Your task to perform on an android device: change timer sound Image 0: 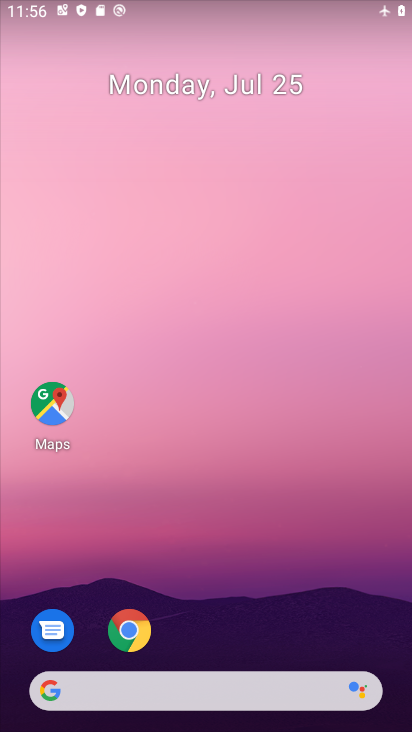
Step 0: press home button
Your task to perform on an android device: change timer sound Image 1: 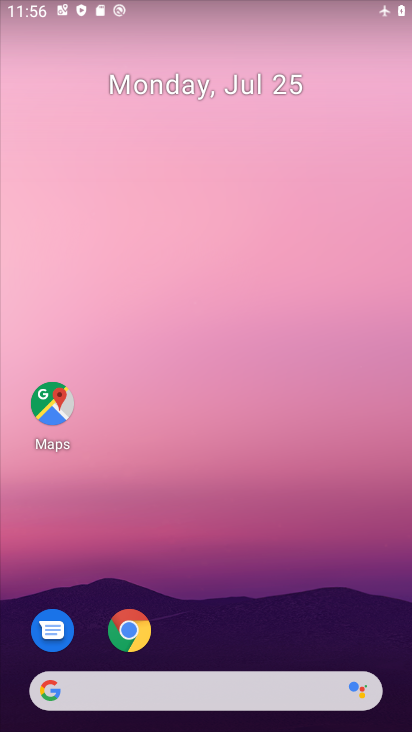
Step 1: drag from (338, 614) to (332, 200)
Your task to perform on an android device: change timer sound Image 2: 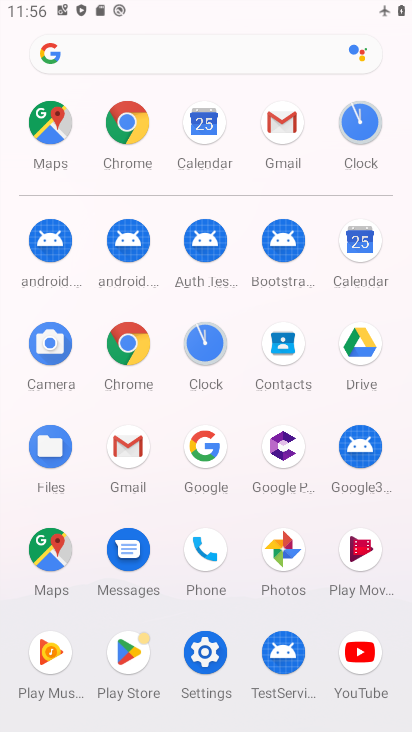
Step 2: click (359, 123)
Your task to perform on an android device: change timer sound Image 3: 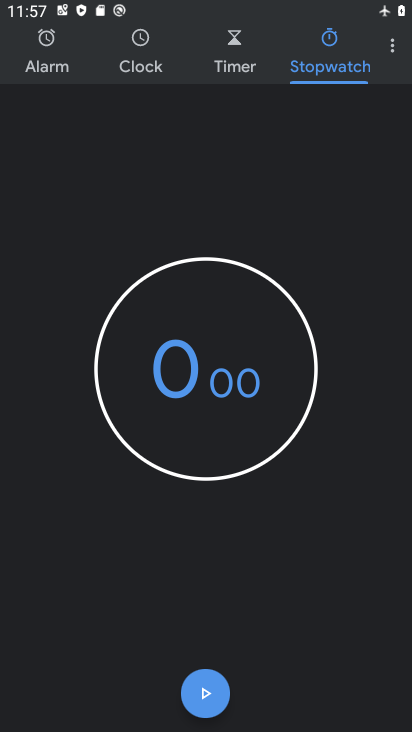
Step 3: click (392, 45)
Your task to perform on an android device: change timer sound Image 4: 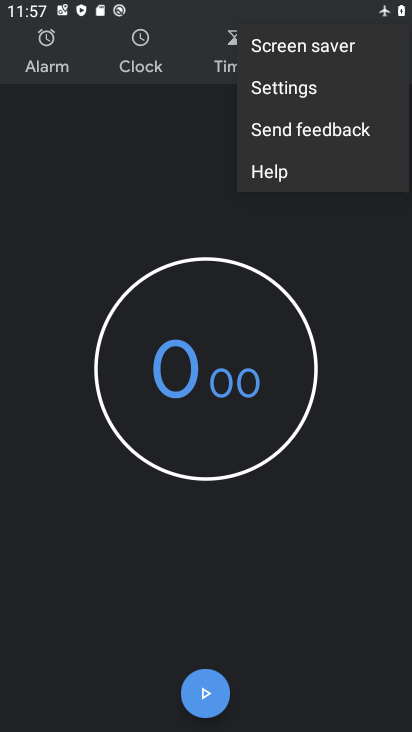
Step 4: click (345, 92)
Your task to perform on an android device: change timer sound Image 5: 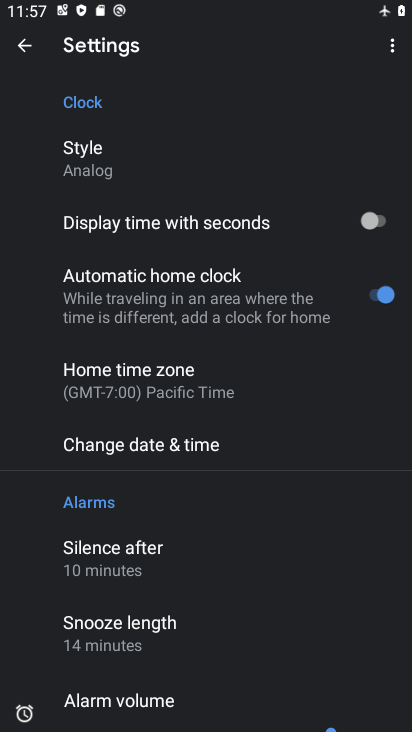
Step 5: drag from (304, 566) to (321, 475)
Your task to perform on an android device: change timer sound Image 6: 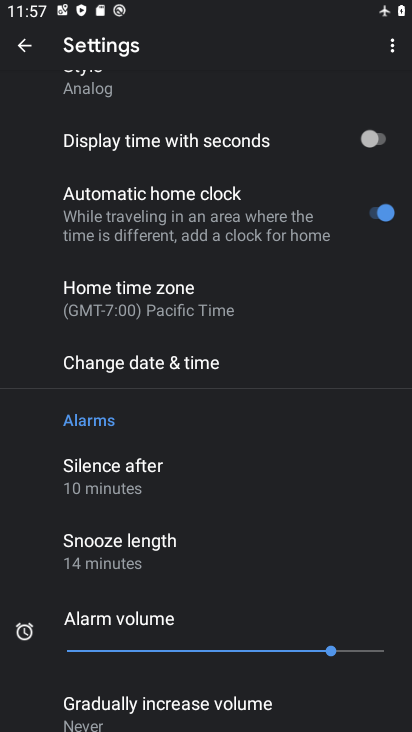
Step 6: drag from (326, 631) to (328, 519)
Your task to perform on an android device: change timer sound Image 7: 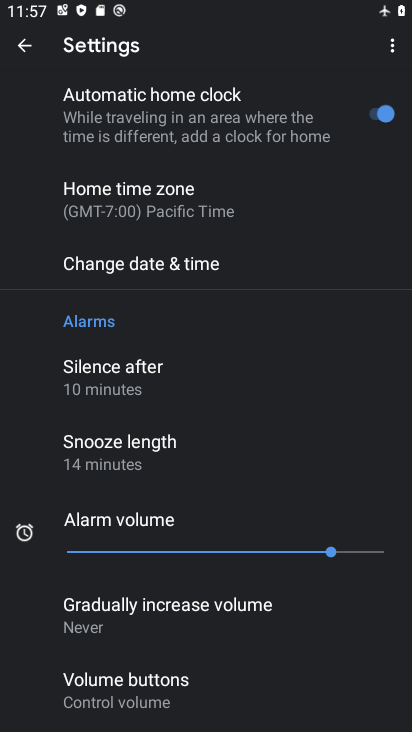
Step 7: drag from (328, 640) to (341, 558)
Your task to perform on an android device: change timer sound Image 8: 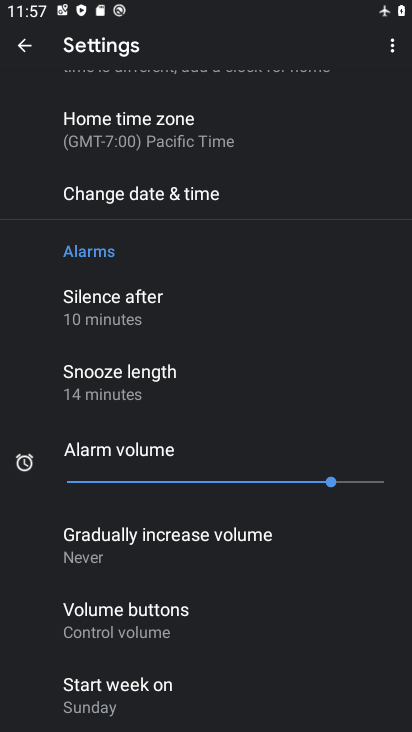
Step 8: drag from (343, 654) to (353, 469)
Your task to perform on an android device: change timer sound Image 9: 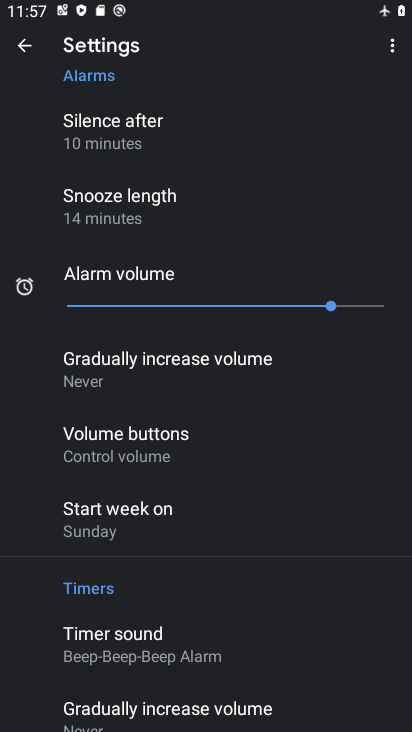
Step 9: drag from (332, 597) to (348, 500)
Your task to perform on an android device: change timer sound Image 10: 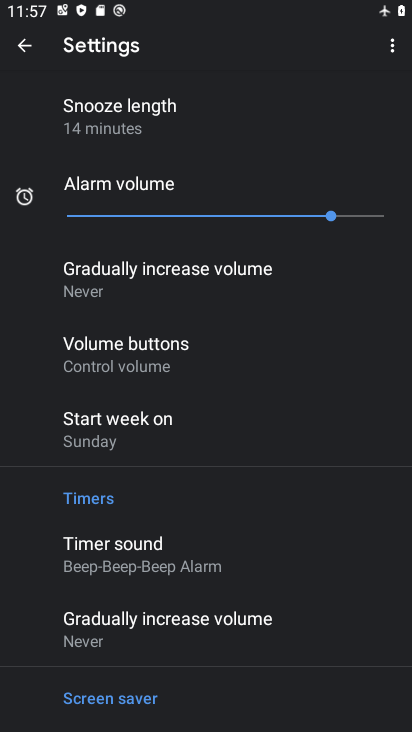
Step 10: drag from (337, 631) to (343, 532)
Your task to perform on an android device: change timer sound Image 11: 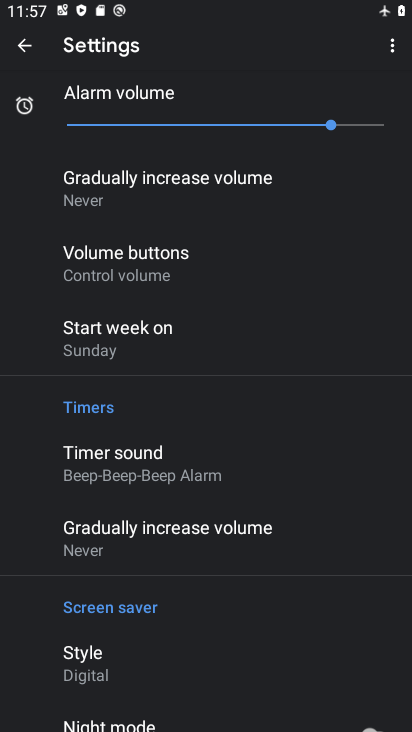
Step 11: click (229, 460)
Your task to perform on an android device: change timer sound Image 12: 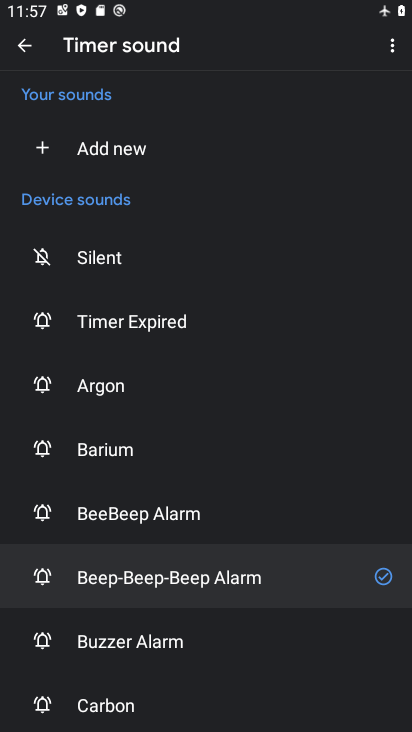
Step 12: click (209, 632)
Your task to perform on an android device: change timer sound Image 13: 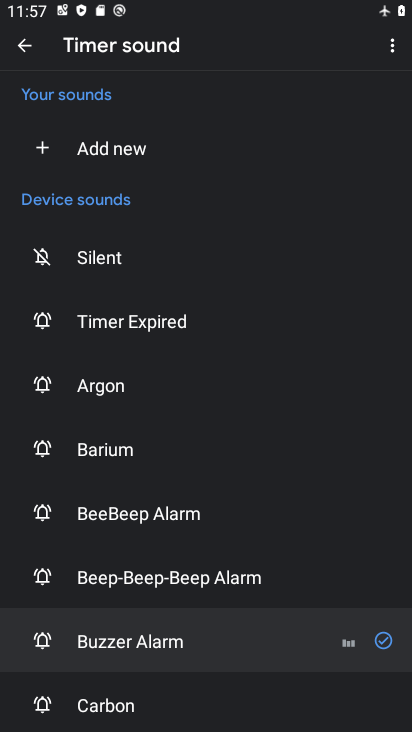
Step 13: task complete